Your task to perform on an android device: show emergency info Image 0: 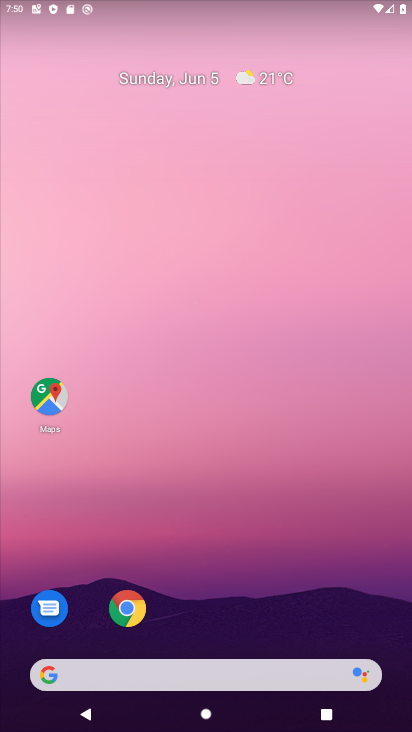
Step 0: drag from (202, 603) to (219, 245)
Your task to perform on an android device: show emergency info Image 1: 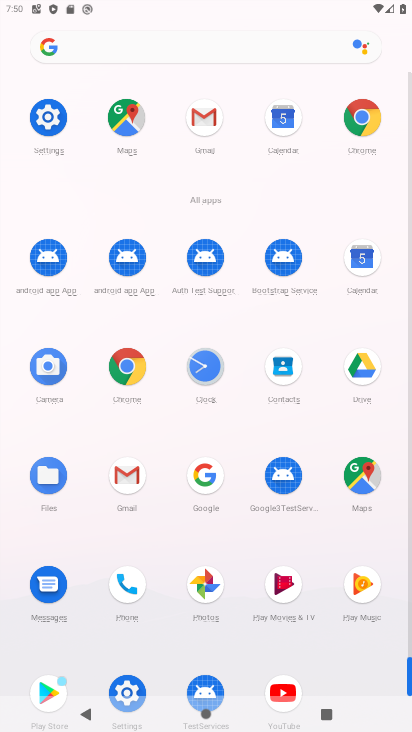
Step 1: click (58, 129)
Your task to perform on an android device: show emergency info Image 2: 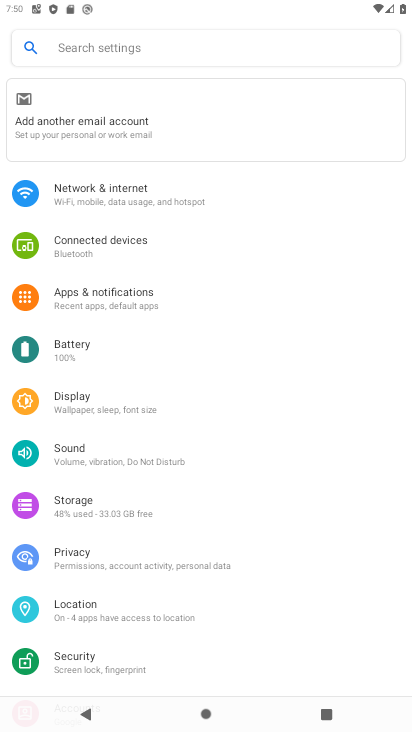
Step 2: drag from (170, 596) to (265, 1)
Your task to perform on an android device: show emergency info Image 3: 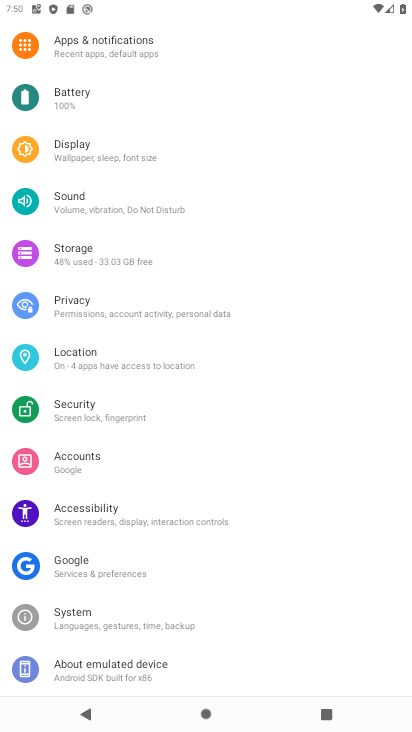
Step 3: click (148, 676)
Your task to perform on an android device: show emergency info Image 4: 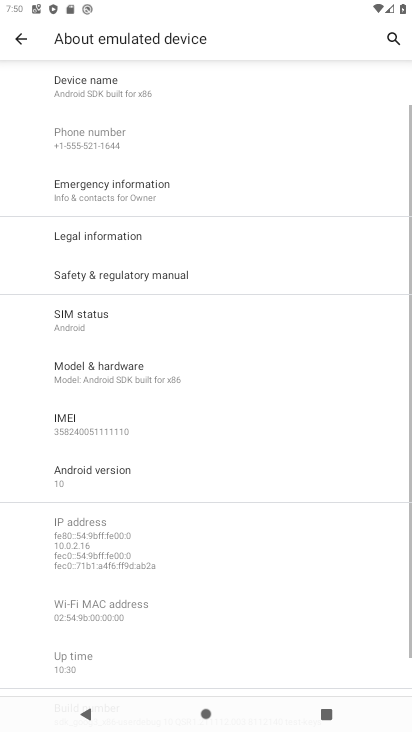
Step 4: click (149, 178)
Your task to perform on an android device: show emergency info Image 5: 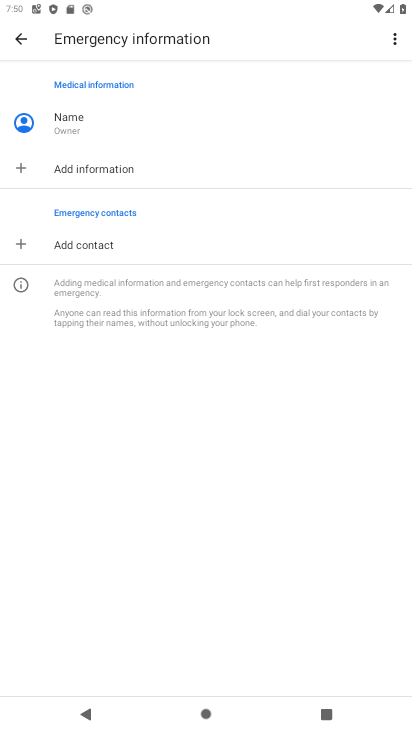
Step 5: task complete